Your task to perform on an android device: delete a single message in the gmail app Image 0: 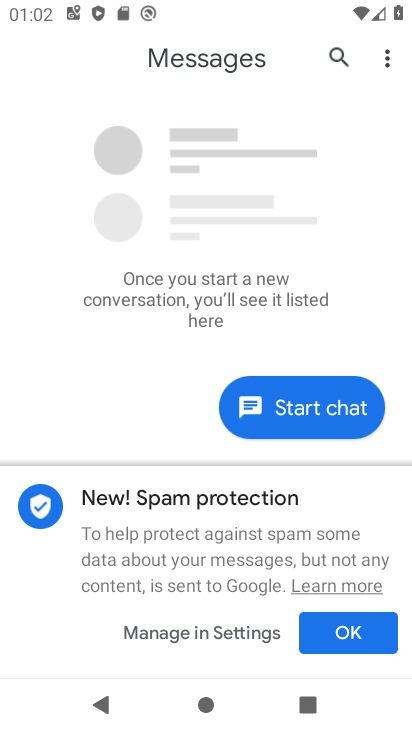
Step 0: press home button
Your task to perform on an android device: delete a single message in the gmail app Image 1: 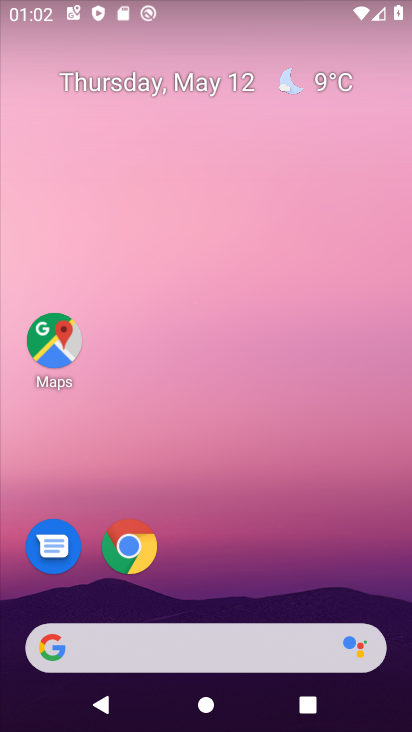
Step 1: drag from (225, 533) to (236, 60)
Your task to perform on an android device: delete a single message in the gmail app Image 2: 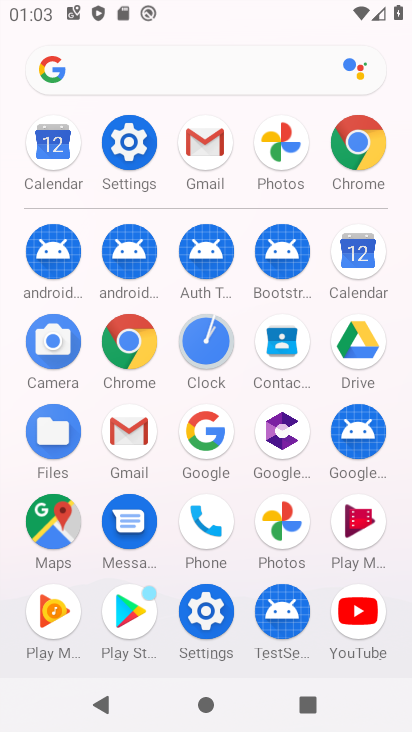
Step 2: click (126, 434)
Your task to perform on an android device: delete a single message in the gmail app Image 3: 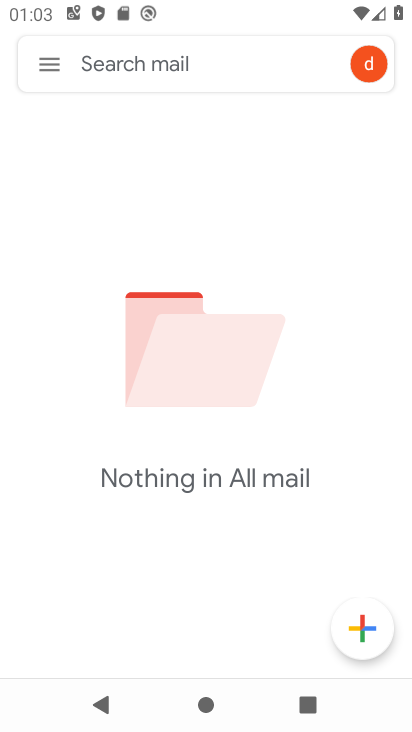
Step 3: click (42, 72)
Your task to perform on an android device: delete a single message in the gmail app Image 4: 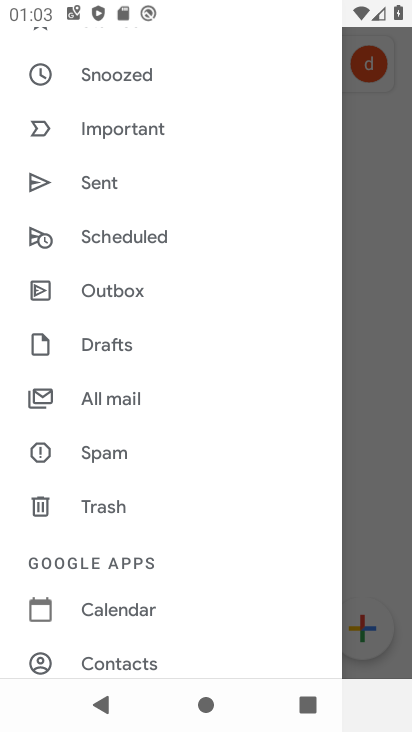
Step 4: click (121, 401)
Your task to perform on an android device: delete a single message in the gmail app Image 5: 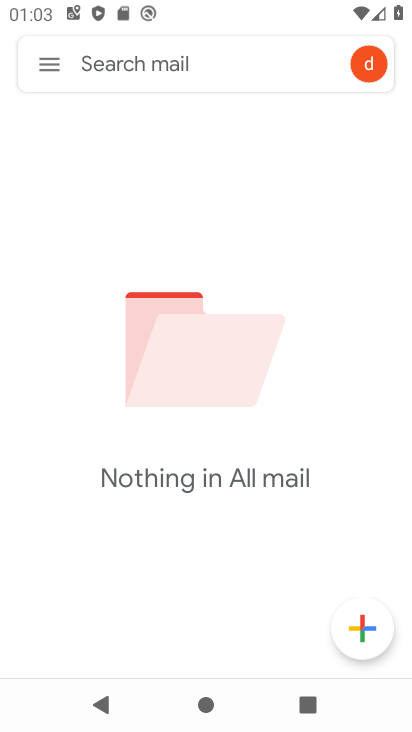
Step 5: task complete